Your task to perform on an android device: Play the last video I watched on Youtube Image 0: 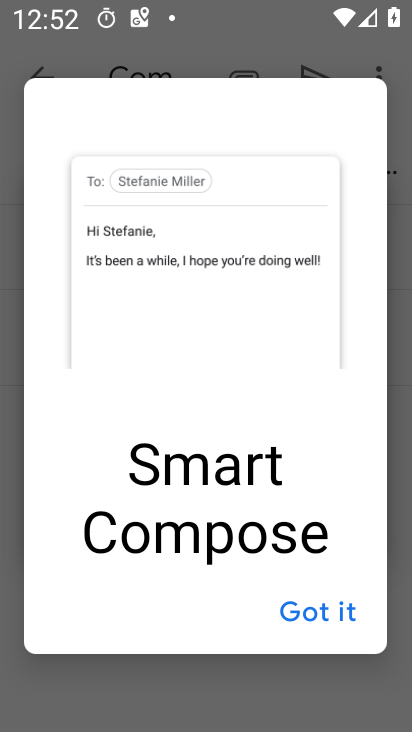
Step 0: press home button
Your task to perform on an android device: Play the last video I watched on Youtube Image 1: 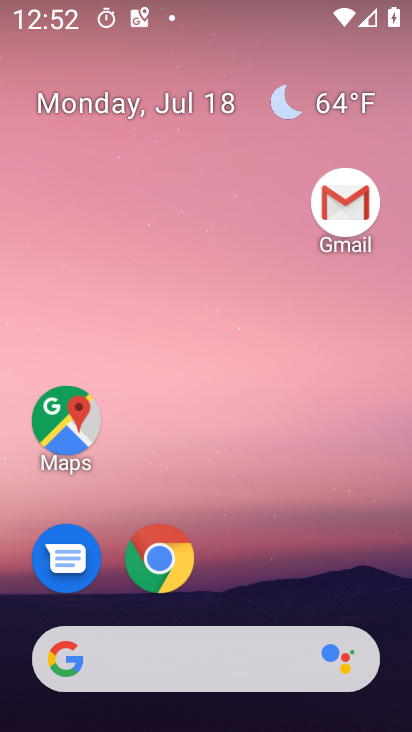
Step 1: drag from (359, 577) to (365, 105)
Your task to perform on an android device: Play the last video I watched on Youtube Image 2: 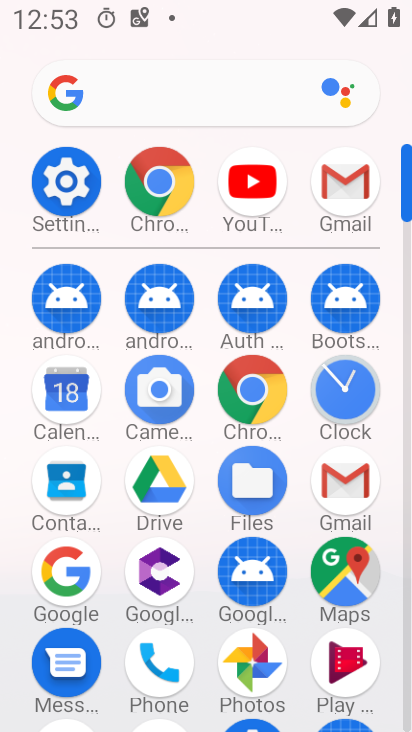
Step 2: click (250, 182)
Your task to perform on an android device: Play the last video I watched on Youtube Image 3: 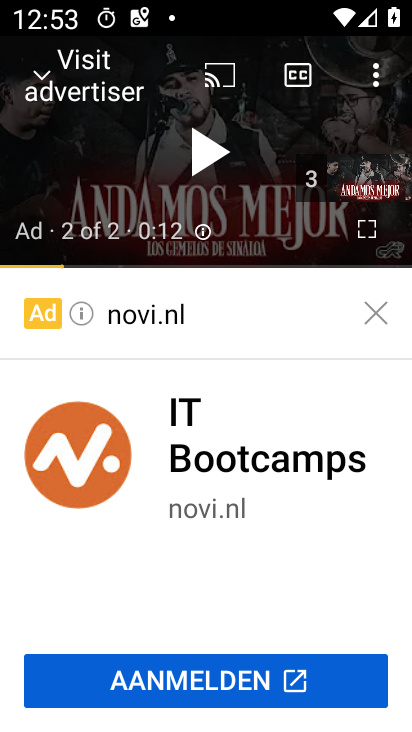
Step 3: click (220, 157)
Your task to perform on an android device: Play the last video I watched on Youtube Image 4: 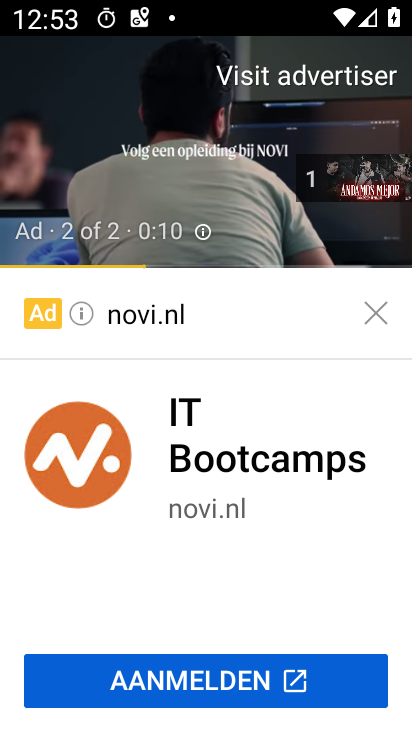
Step 4: task complete